Your task to perform on an android device: star an email in the gmail app Image 0: 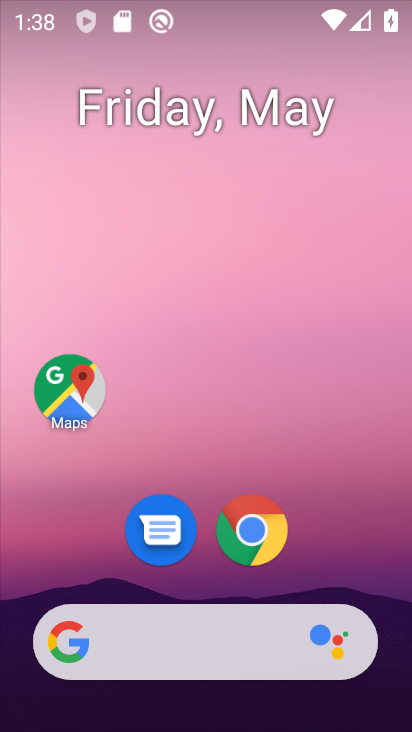
Step 0: drag from (226, 589) to (259, 4)
Your task to perform on an android device: star an email in the gmail app Image 1: 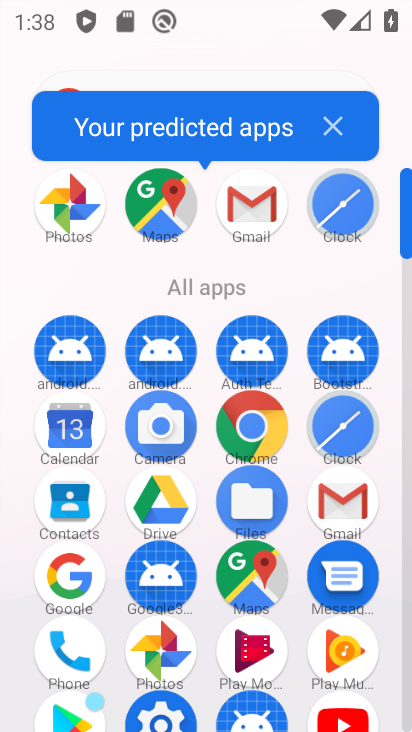
Step 1: click (359, 495)
Your task to perform on an android device: star an email in the gmail app Image 2: 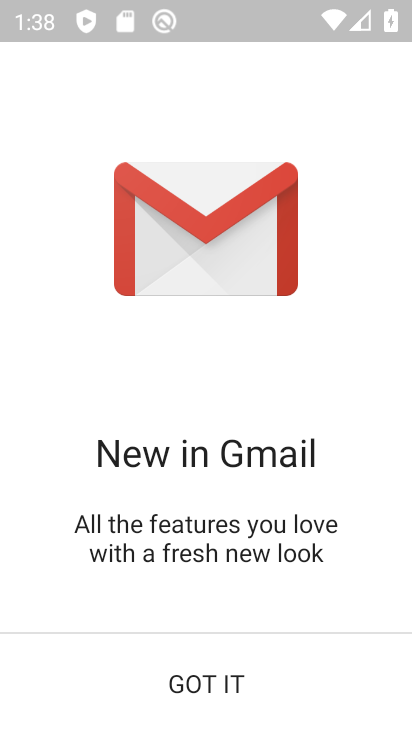
Step 2: click (182, 700)
Your task to perform on an android device: star an email in the gmail app Image 3: 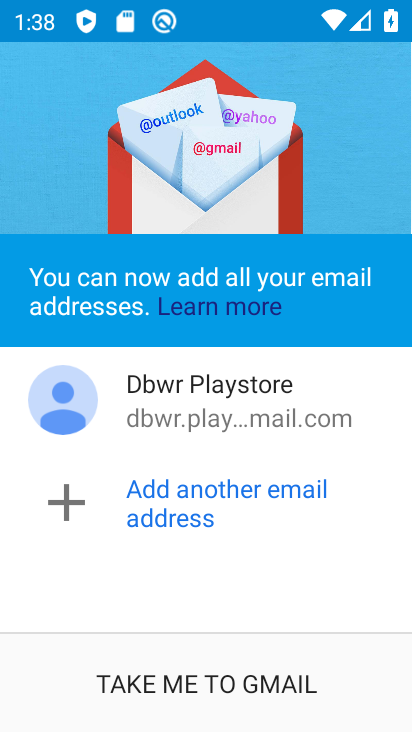
Step 3: click (184, 699)
Your task to perform on an android device: star an email in the gmail app Image 4: 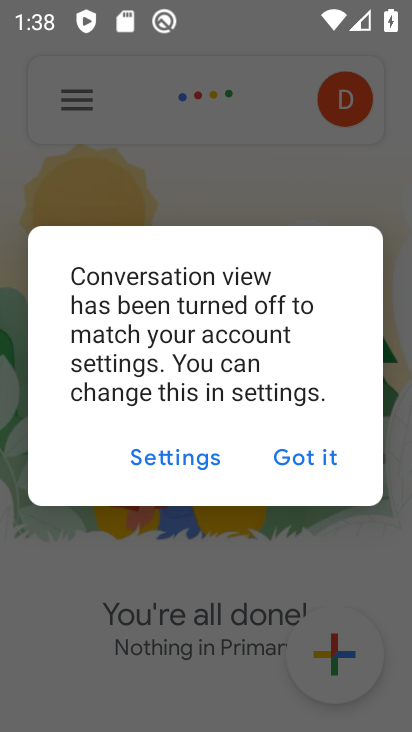
Step 4: click (284, 455)
Your task to perform on an android device: star an email in the gmail app Image 5: 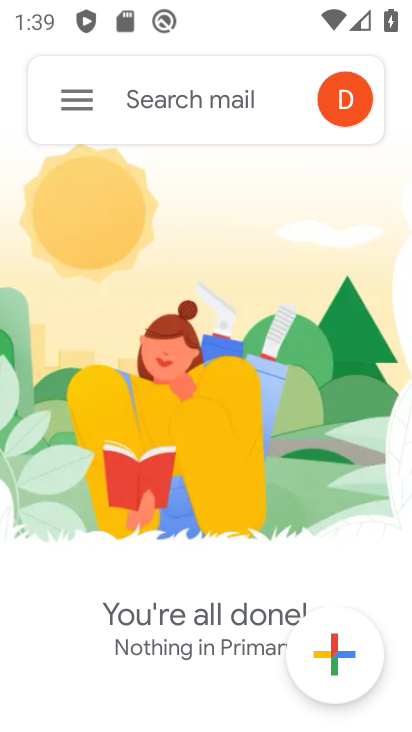
Step 5: click (74, 102)
Your task to perform on an android device: star an email in the gmail app Image 6: 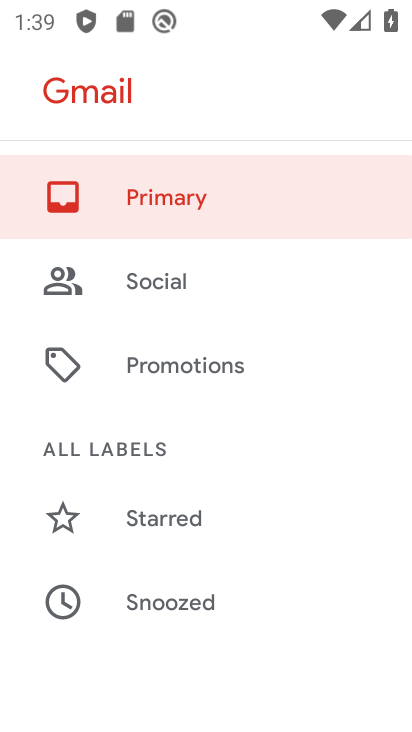
Step 6: drag from (143, 589) to (210, 157)
Your task to perform on an android device: star an email in the gmail app Image 7: 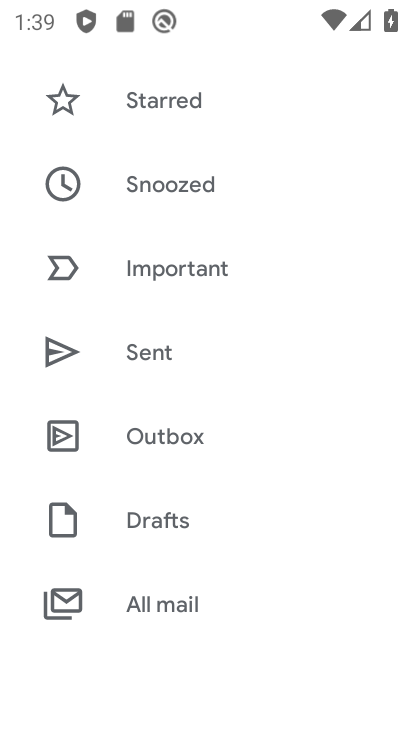
Step 7: drag from (189, 548) to (220, 236)
Your task to perform on an android device: star an email in the gmail app Image 8: 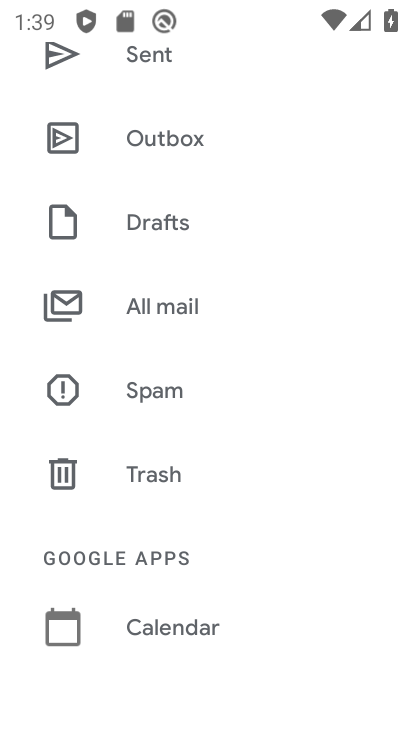
Step 8: click (183, 313)
Your task to perform on an android device: star an email in the gmail app Image 9: 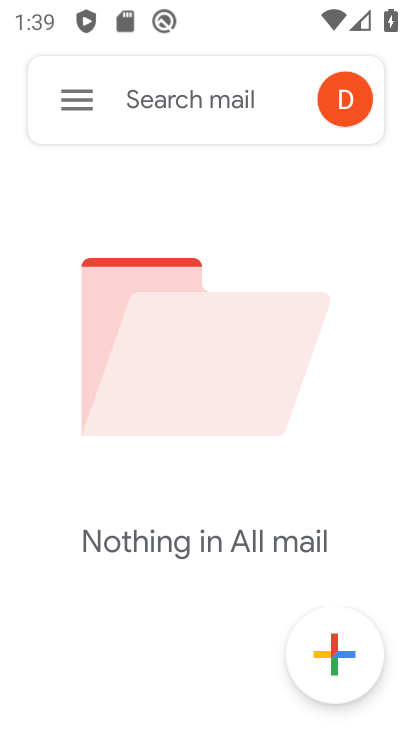
Step 9: task complete